Your task to perform on an android device: Go to Reddit.com Image 0: 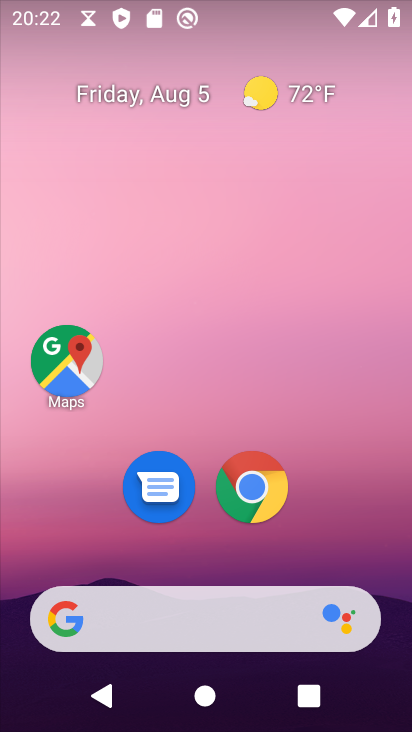
Step 0: click (246, 480)
Your task to perform on an android device: Go to Reddit.com Image 1: 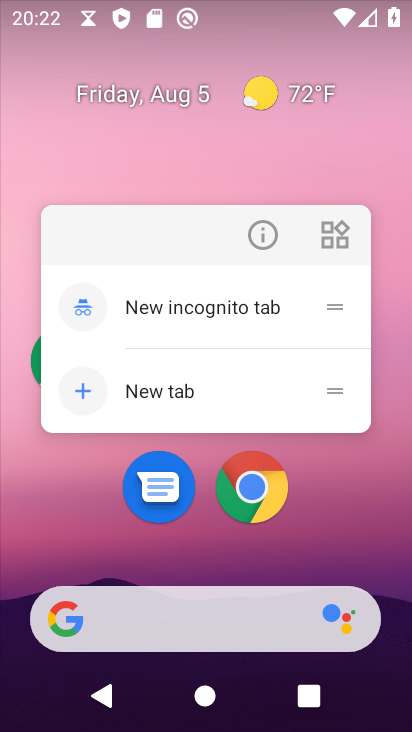
Step 1: click (249, 483)
Your task to perform on an android device: Go to Reddit.com Image 2: 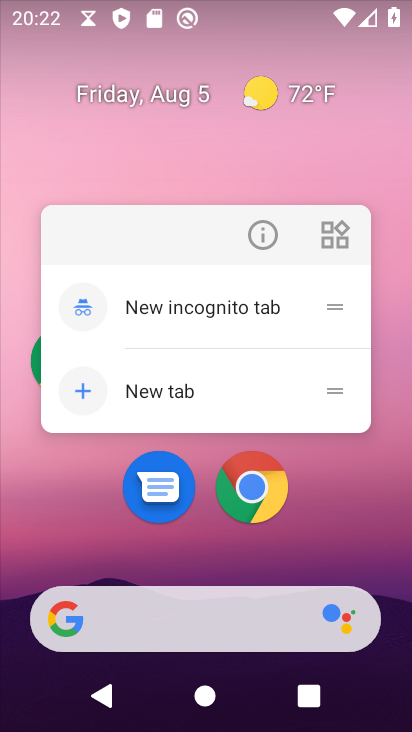
Step 2: click (249, 491)
Your task to perform on an android device: Go to Reddit.com Image 3: 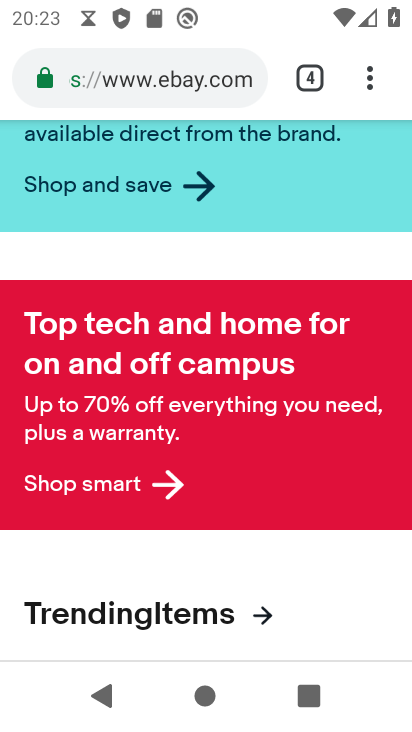
Step 3: drag from (367, 79) to (244, 167)
Your task to perform on an android device: Go to Reddit.com Image 4: 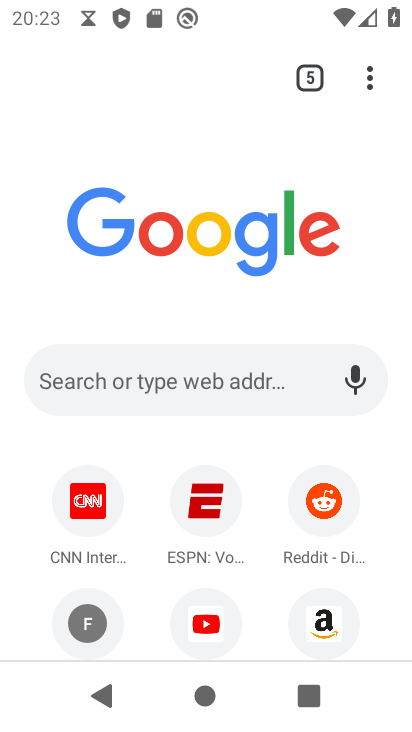
Step 4: click (312, 506)
Your task to perform on an android device: Go to Reddit.com Image 5: 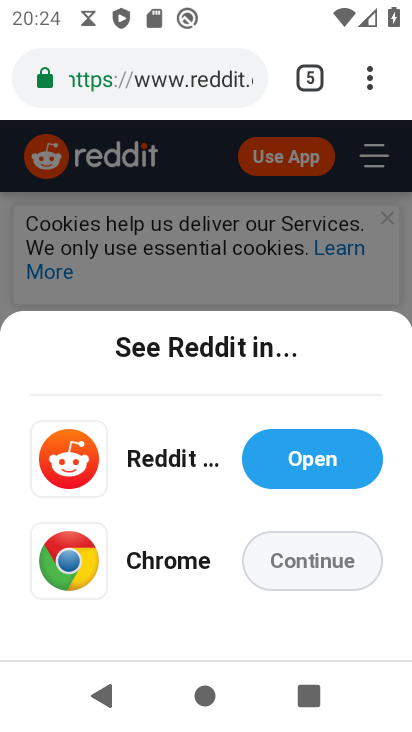
Step 5: task complete